Your task to perform on an android device: Show me the best rated 4K TV on Walmart. Image 0: 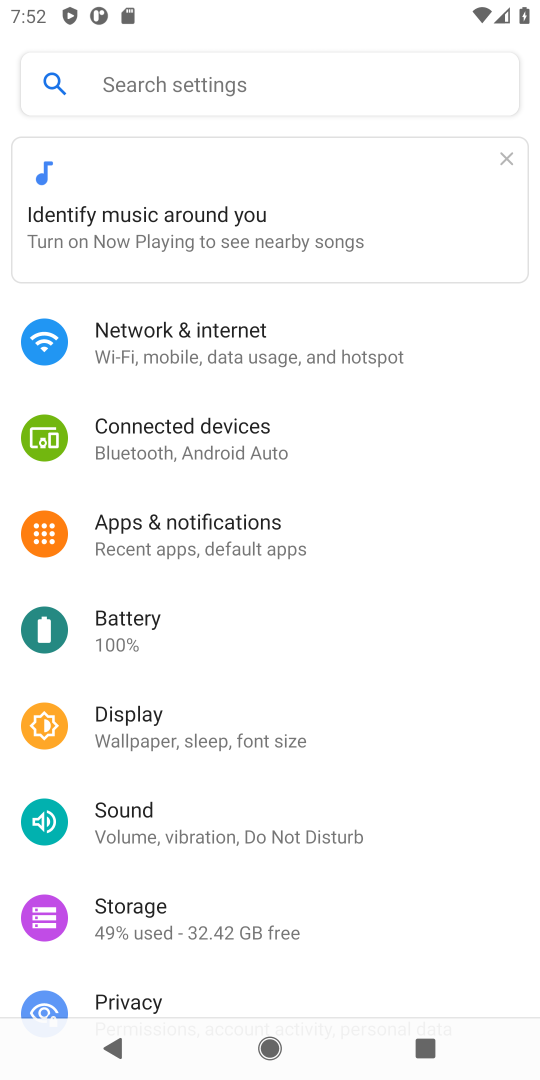
Step 0: press home button
Your task to perform on an android device: Show me the best rated 4K TV on Walmart. Image 1: 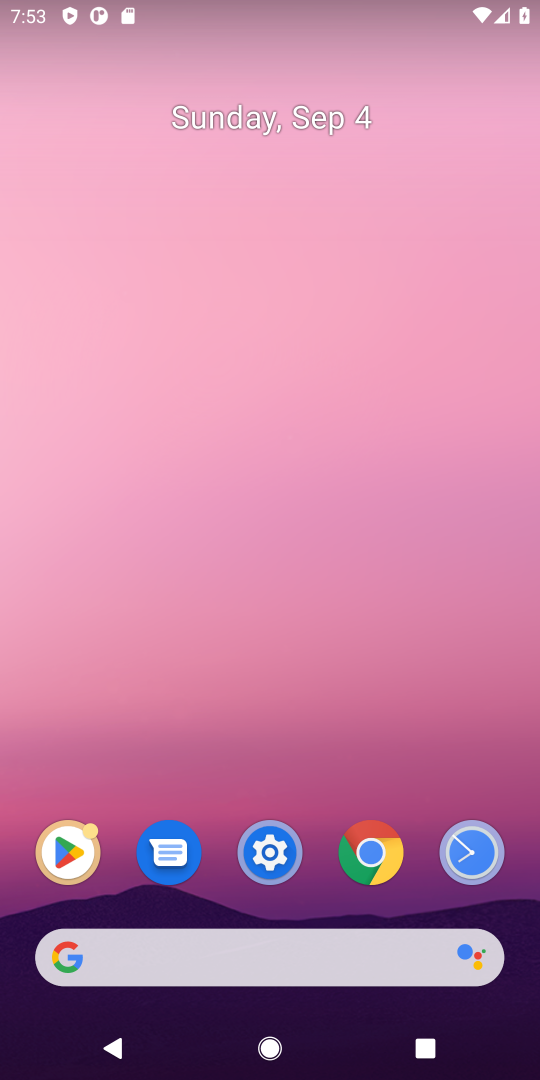
Step 1: drag from (213, 122) to (151, 2)
Your task to perform on an android device: Show me the best rated 4K TV on Walmart. Image 2: 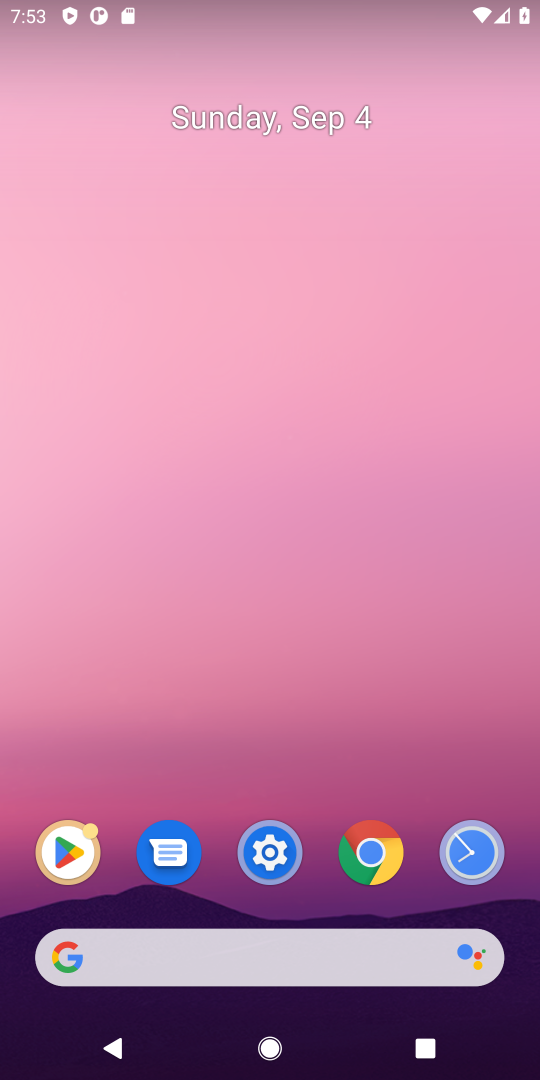
Step 2: drag from (458, 819) to (206, 20)
Your task to perform on an android device: Show me the best rated 4K TV on Walmart. Image 3: 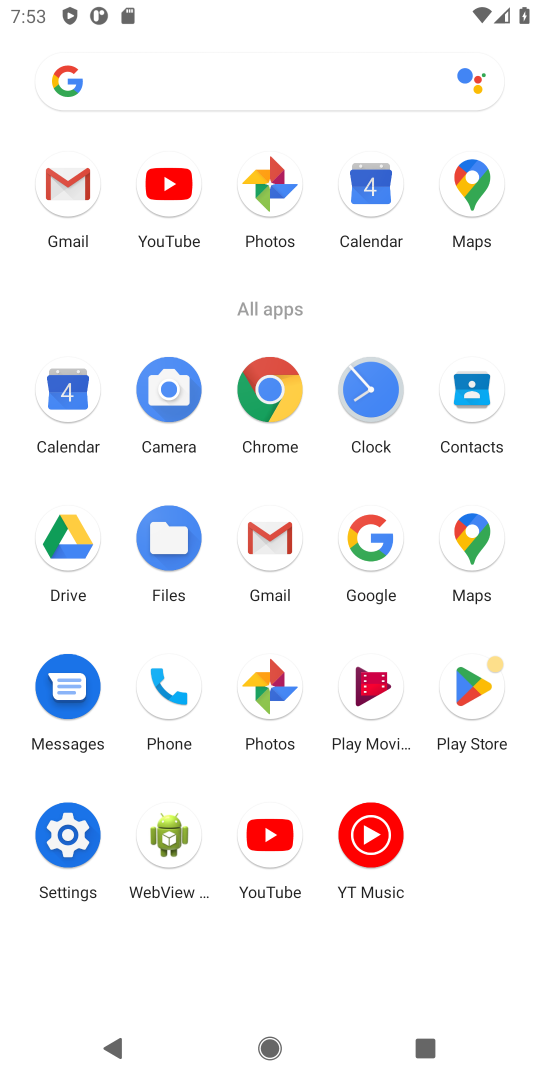
Step 3: click (365, 544)
Your task to perform on an android device: Show me the best rated 4K TV on Walmart. Image 4: 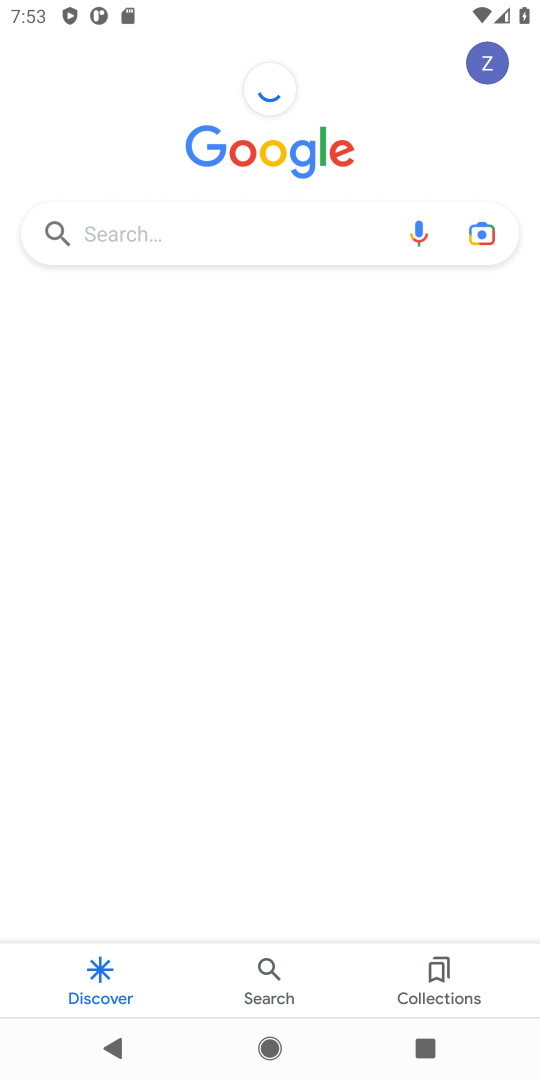
Step 4: click (139, 240)
Your task to perform on an android device: Show me the best rated 4K TV on Walmart. Image 5: 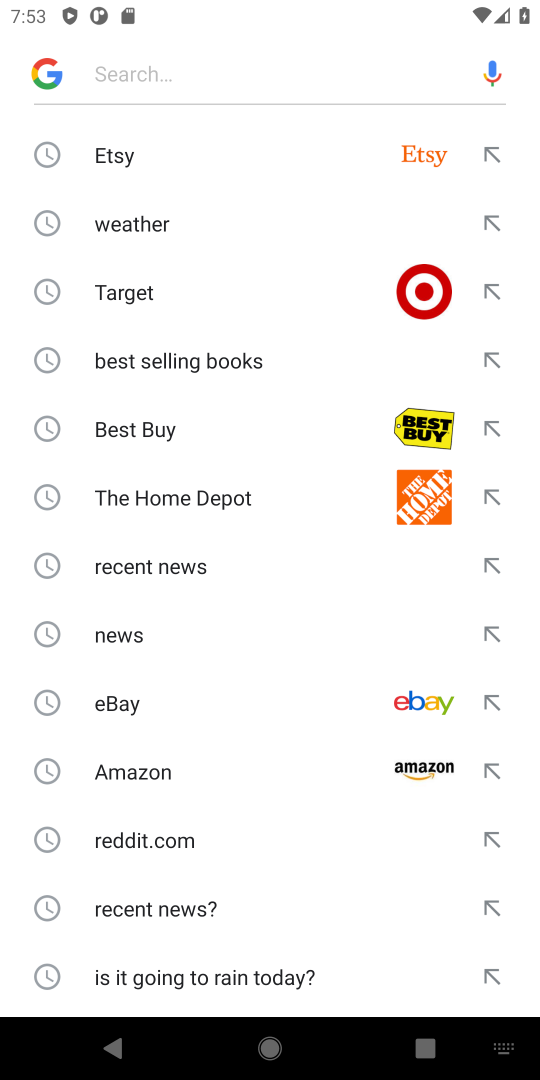
Step 5: type "Walmart"
Your task to perform on an android device: Show me the best rated 4K TV on Walmart. Image 6: 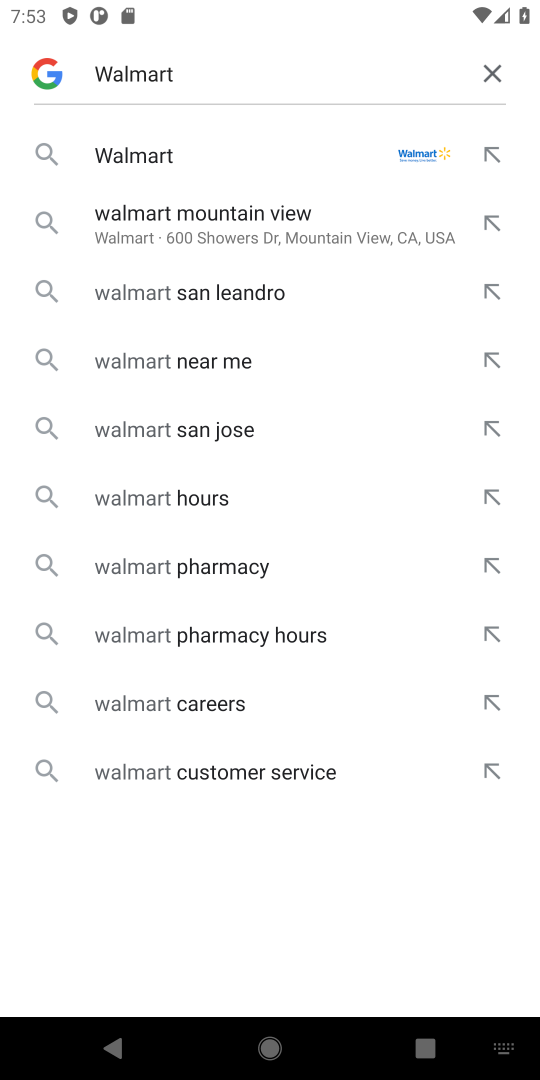
Step 6: click (151, 157)
Your task to perform on an android device: Show me the best rated 4K TV on Walmart. Image 7: 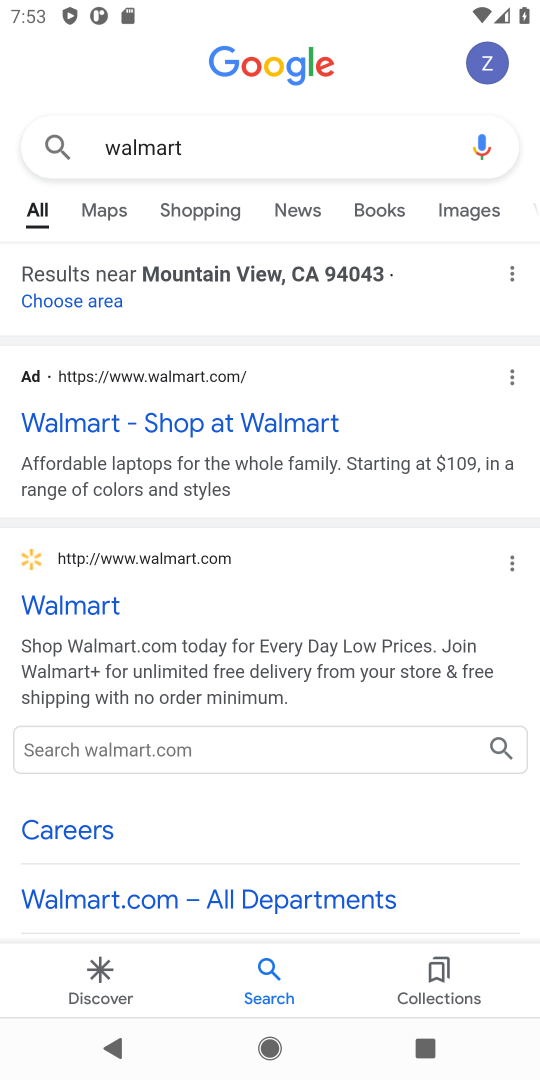
Step 7: click (223, 432)
Your task to perform on an android device: Show me the best rated 4K TV on Walmart. Image 8: 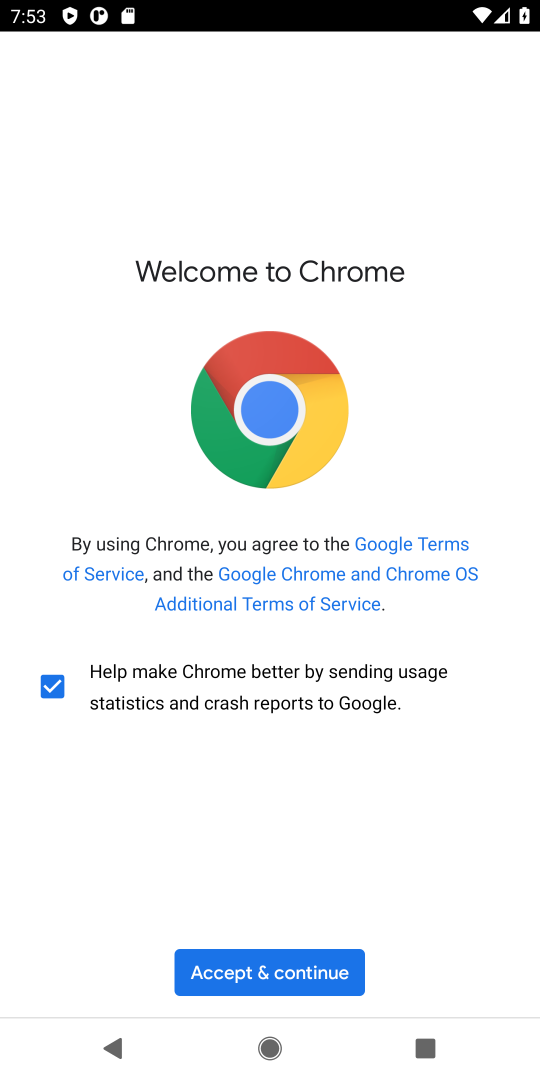
Step 8: click (328, 982)
Your task to perform on an android device: Show me the best rated 4K TV on Walmart. Image 9: 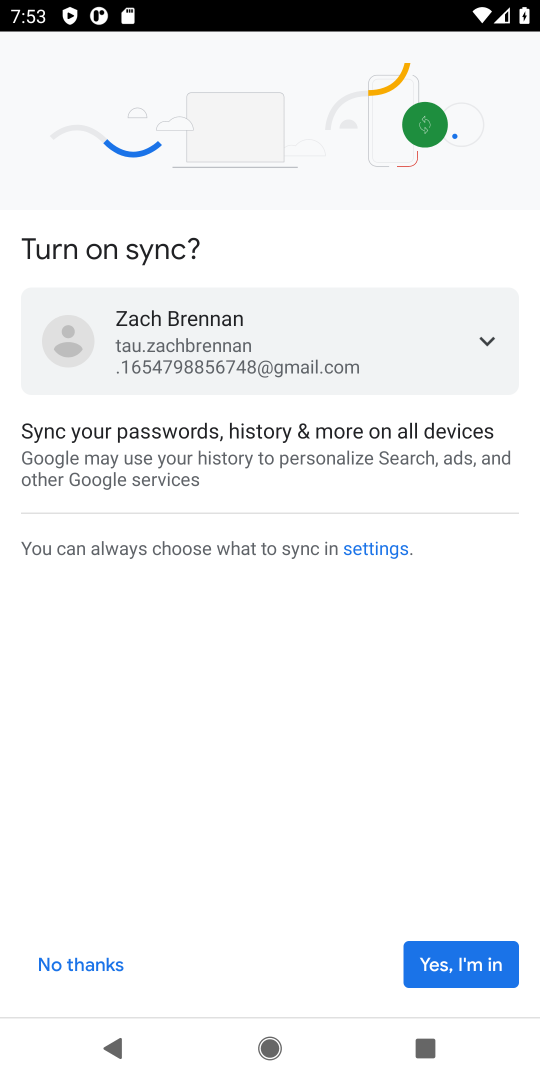
Step 9: click (485, 962)
Your task to perform on an android device: Show me the best rated 4K TV on Walmart. Image 10: 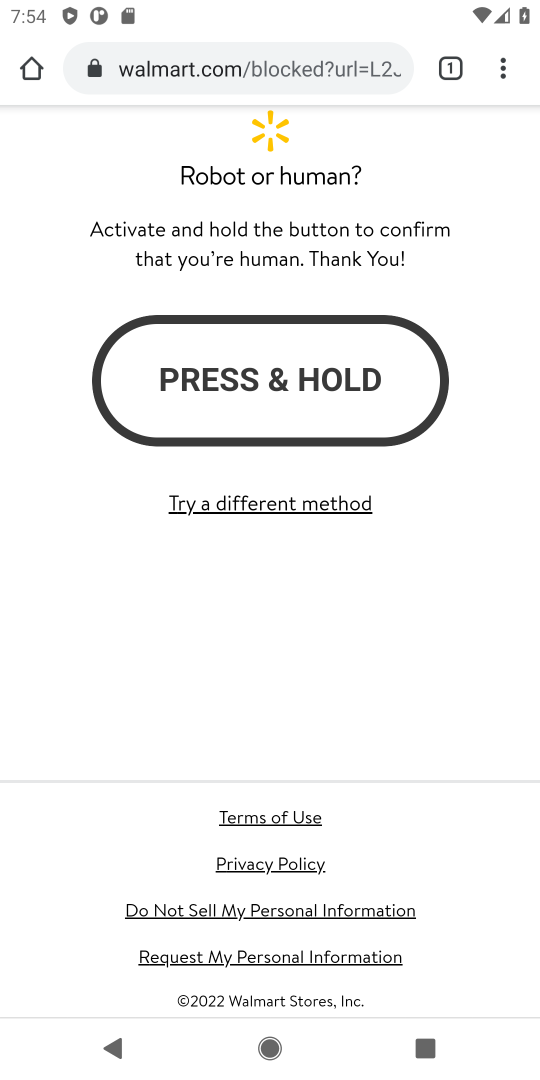
Step 10: task complete